Your task to perform on an android device: Add bose quietcomfort 35 to the cart on bestbuy.com, then select checkout. Image 0: 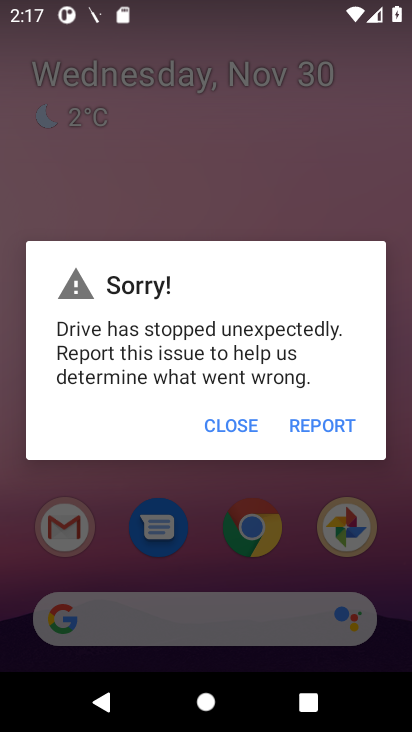
Step 0: click (216, 418)
Your task to perform on an android device: Add bose quietcomfort 35 to the cart on bestbuy.com, then select checkout. Image 1: 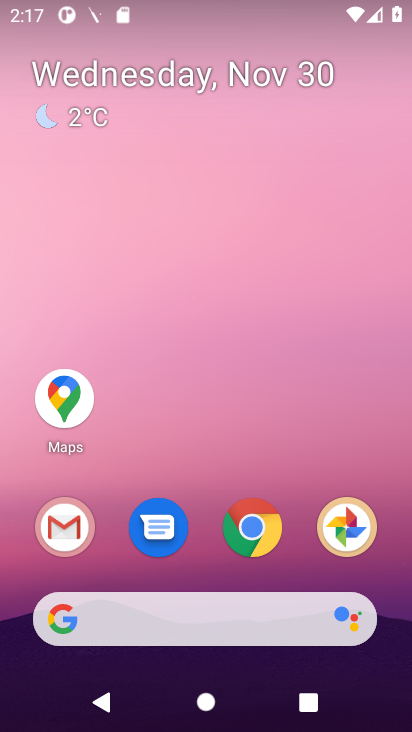
Step 1: click (243, 526)
Your task to perform on an android device: Add bose quietcomfort 35 to the cart on bestbuy.com, then select checkout. Image 2: 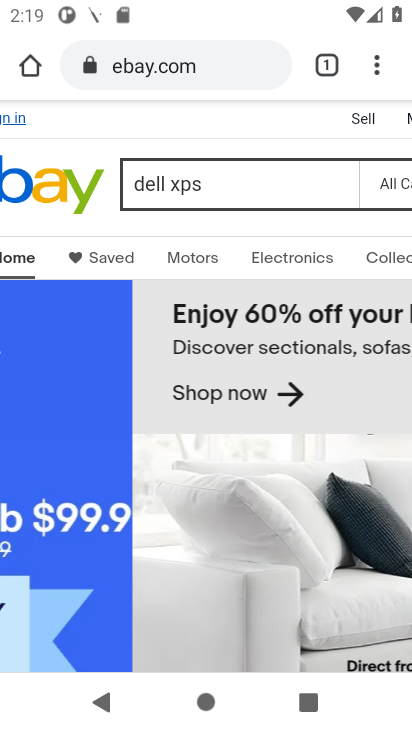
Step 2: task complete